Your task to perform on an android device: Do I have any events today? Image 0: 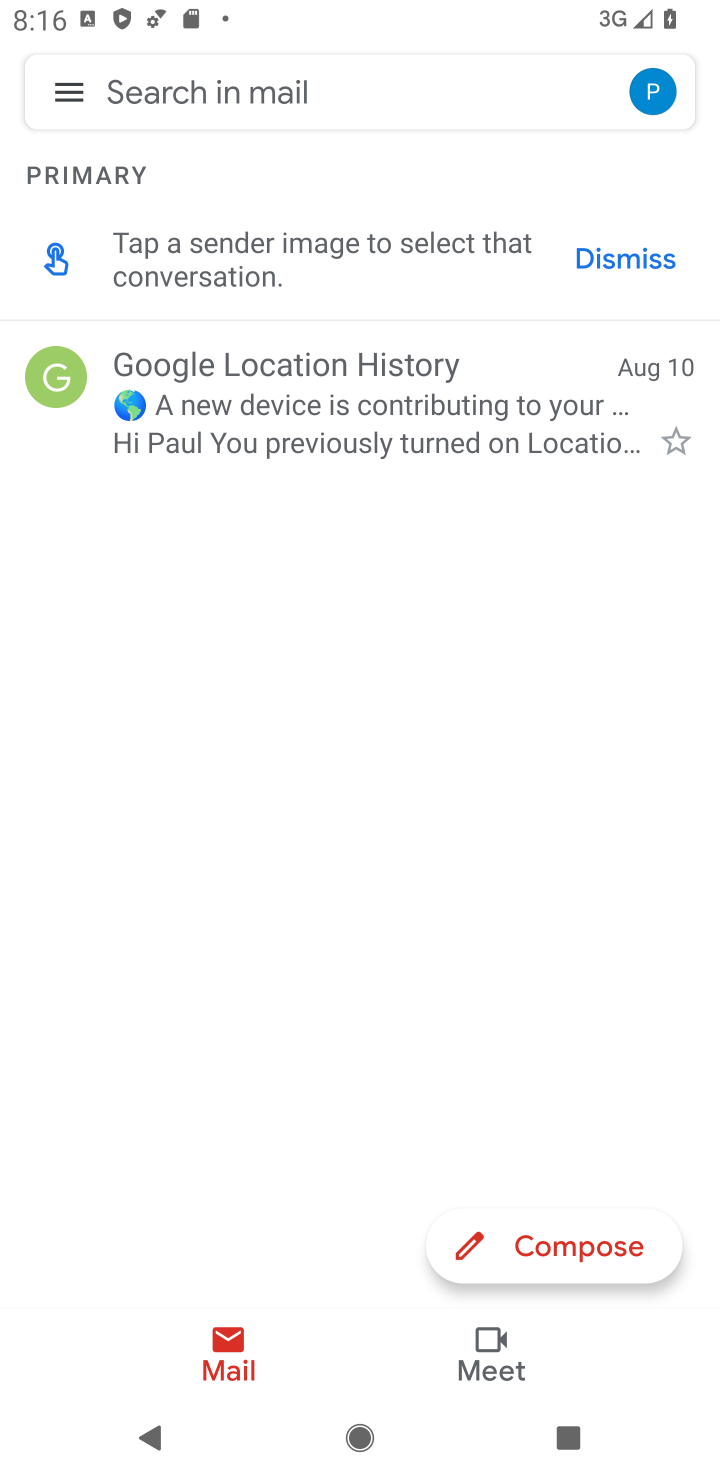
Step 0: press home button
Your task to perform on an android device: Do I have any events today? Image 1: 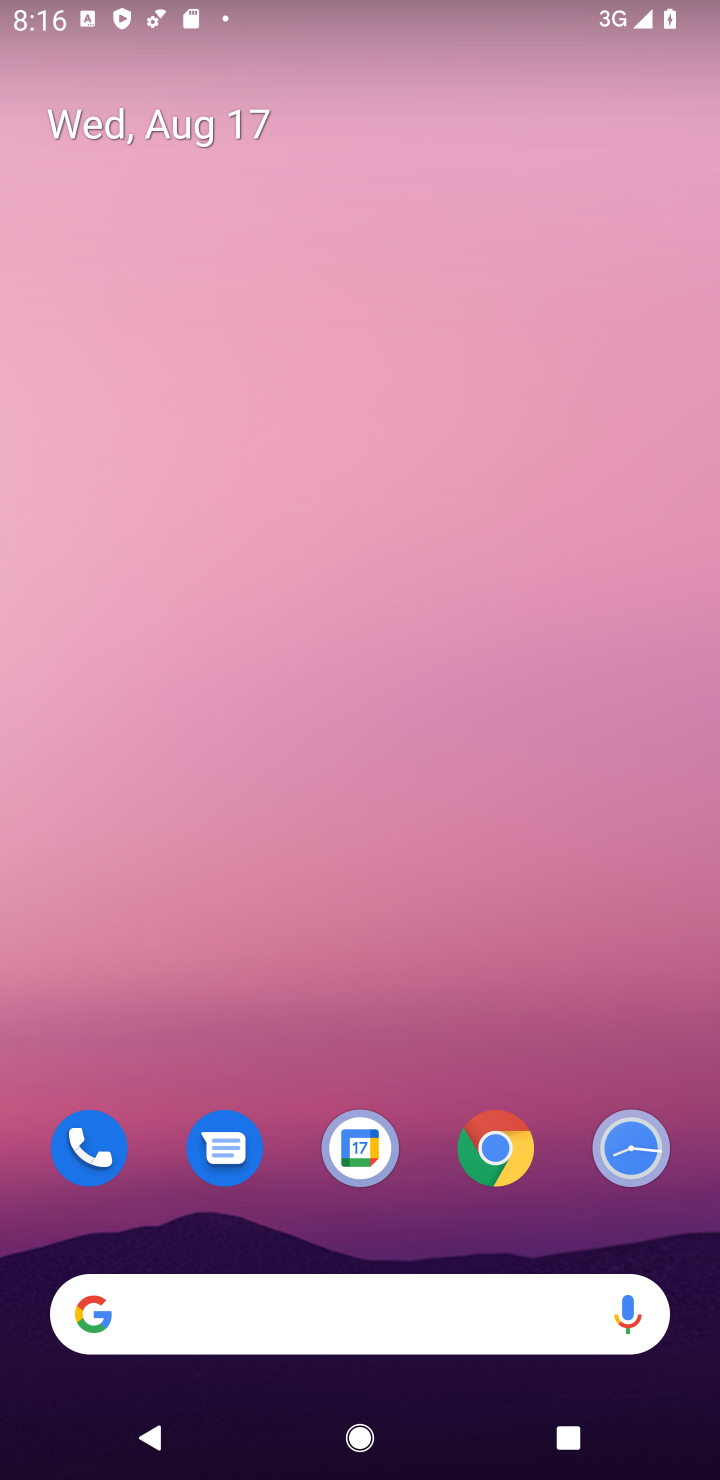
Step 1: click (356, 1141)
Your task to perform on an android device: Do I have any events today? Image 2: 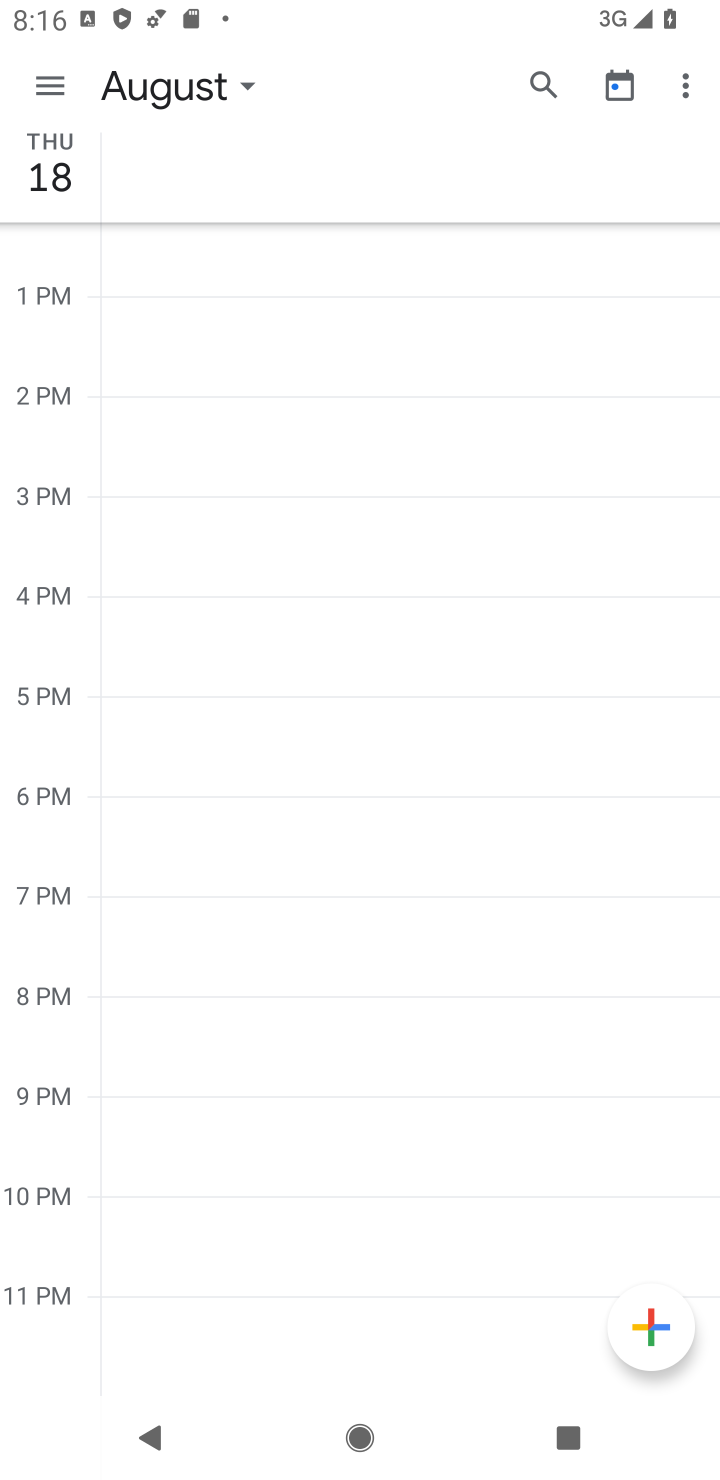
Step 2: click (247, 93)
Your task to perform on an android device: Do I have any events today? Image 3: 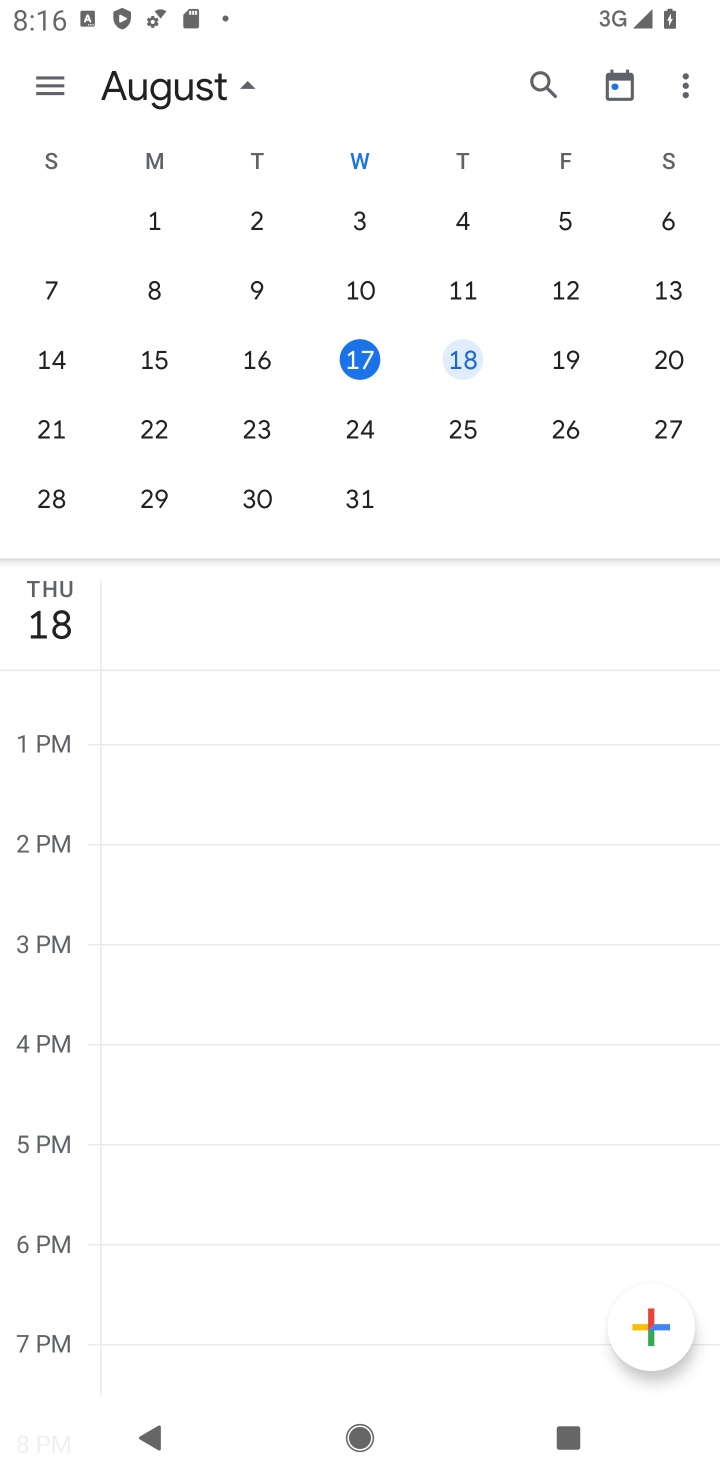
Step 3: click (363, 354)
Your task to perform on an android device: Do I have any events today? Image 4: 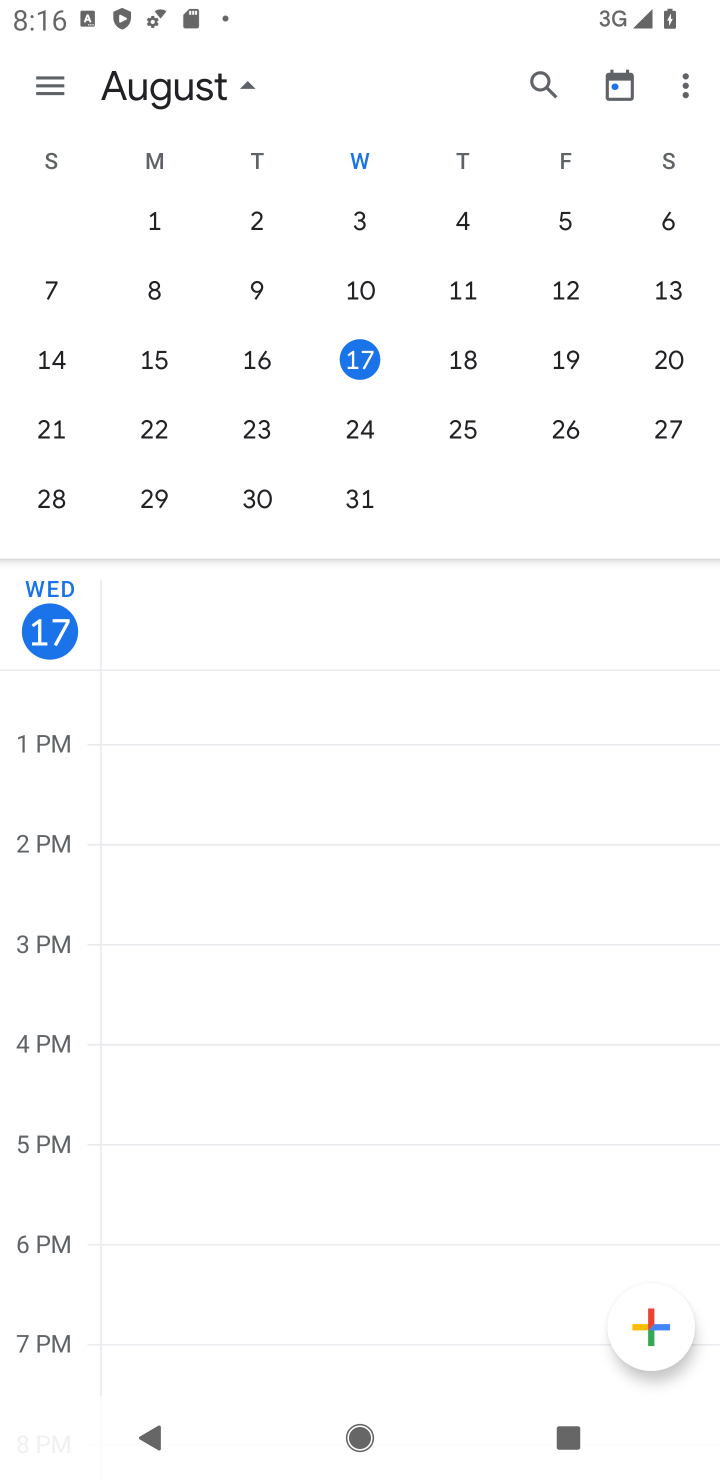
Step 4: task complete